Your task to perform on an android device: Open Maps and search for coffee Image 0: 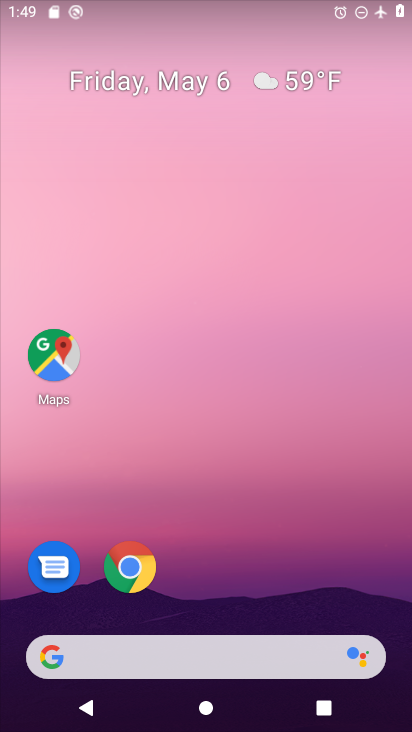
Step 0: drag from (258, 598) to (233, 156)
Your task to perform on an android device: Open Maps and search for coffee Image 1: 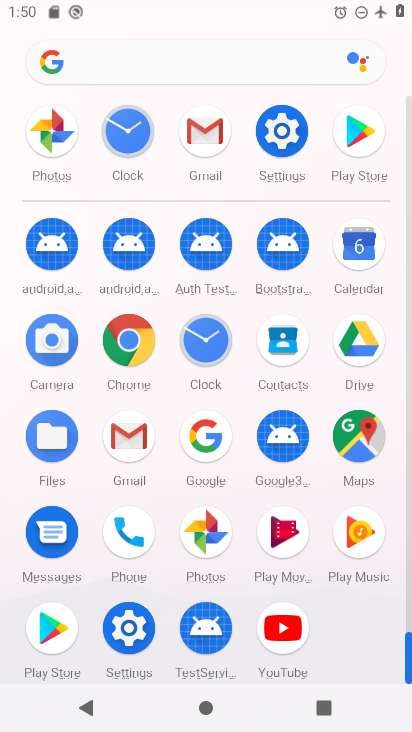
Step 1: click (356, 446)
Your task to perform on an android device: Open Maps and search for coffee Image 2: 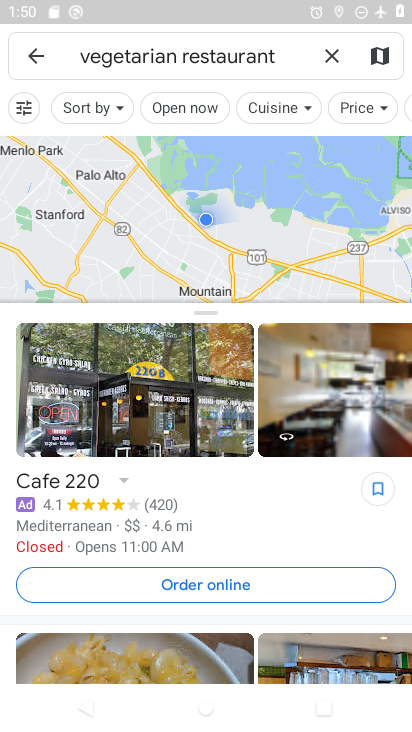
Step 2: click (331, 46)
Your task to perform on an android device: Open Maps and search for coffee Image 3: 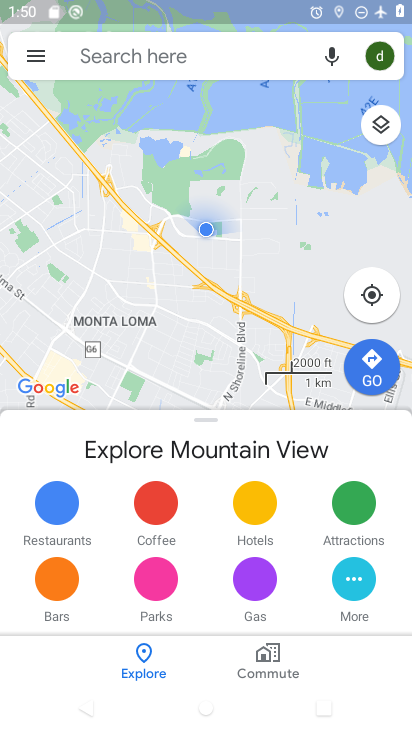
Step 3: click (264, 59)
Your task to perform on an android device: Open Maps and search for coffee Image 4: 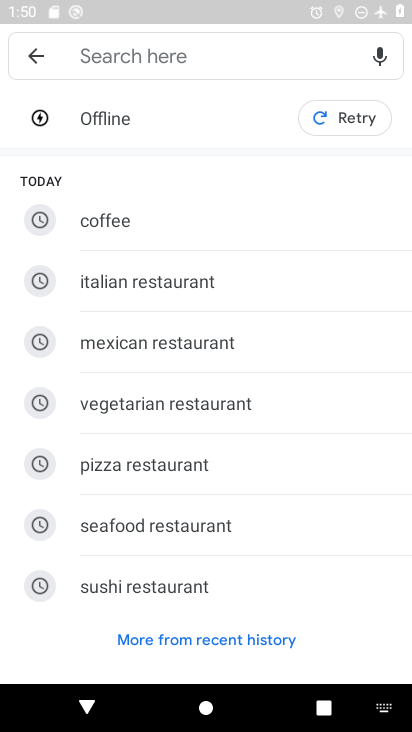
Step 4: click (203, 223)
Your task to perform on an android device: Open Maps and search for coffee Image 5: 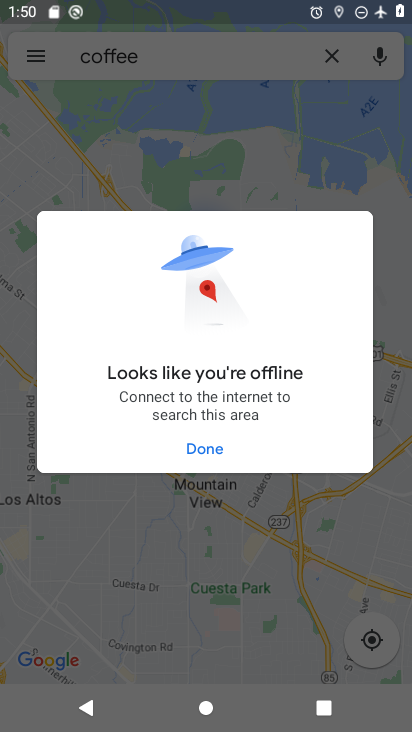
Step 5: click (241, 441)
Your task to perform on an android device: Open Maps and search for coffee Image 6: 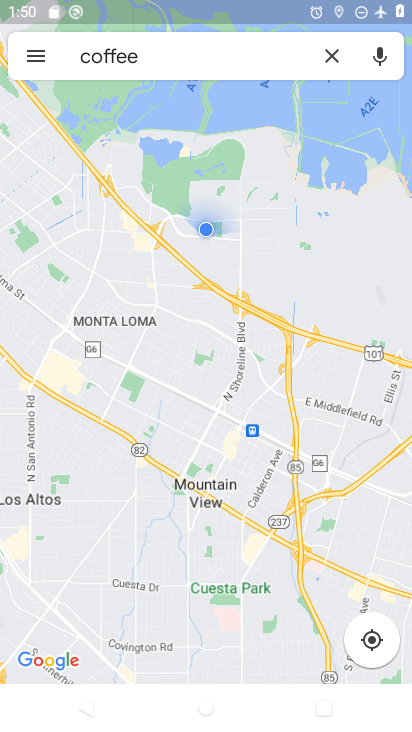
Step 6: task complete